Your task to perform on an android device: Search for panasonic triple a on ebay, select the first entry, and add it to the cart. Image 0: 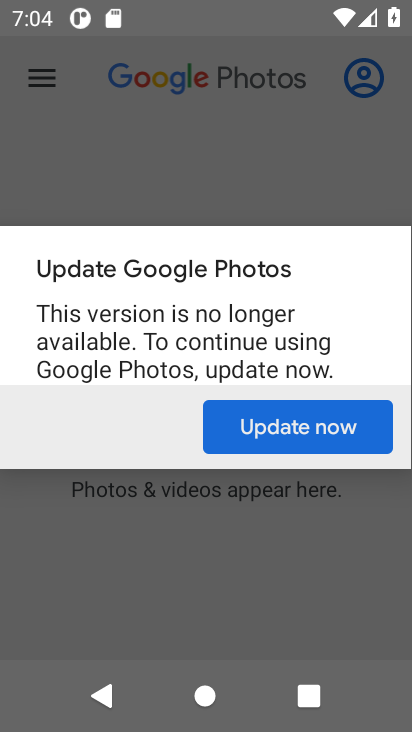
Step 0: press home button
Your task to perform on an android device: Search for panasonic triple a on ebay, select the first entry, and add it to the cart. Image 1: 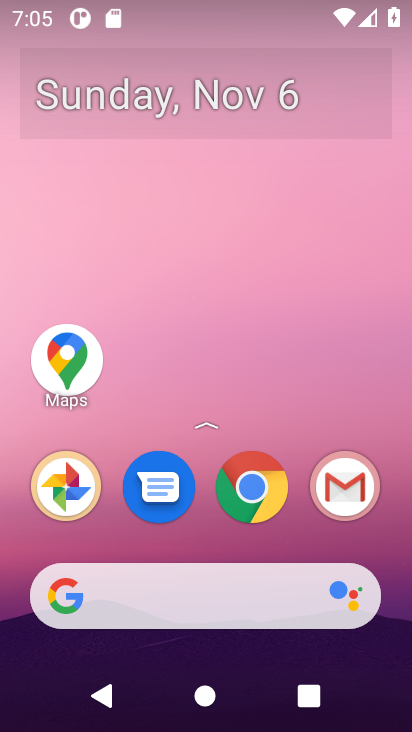
Step 1: click (248, 489)
Your task to perform on an android device: Search for panasonic triple a on ebay, select the first entry, and add it to the cart. Image 2: 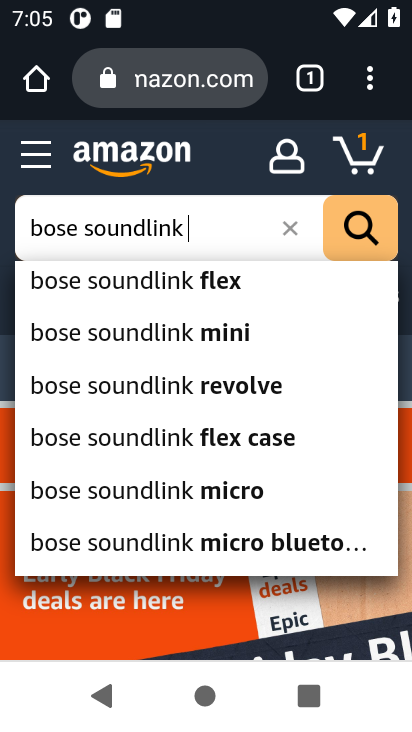
Step 2: click (137, 87)
Your task to perform on an android device: Search for panasonic triple a on ebay, select the first entry, and add it to the cart. Image 3: 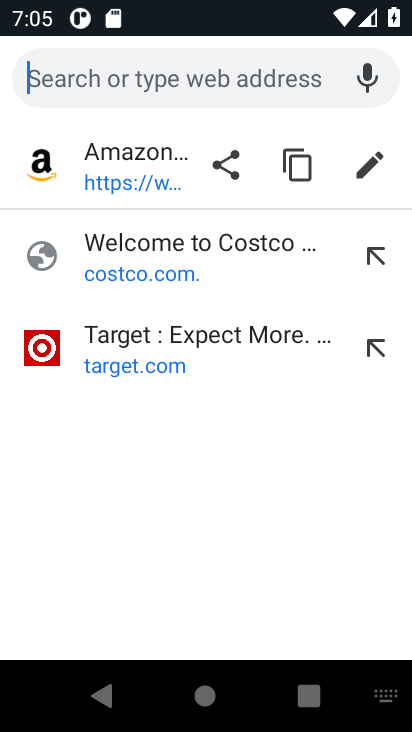
Step 3: type "ebay"
Your task to perform on an android device: Search for panasonic triple a on ebay, select the first entry, and add it to the cart. Image 4: 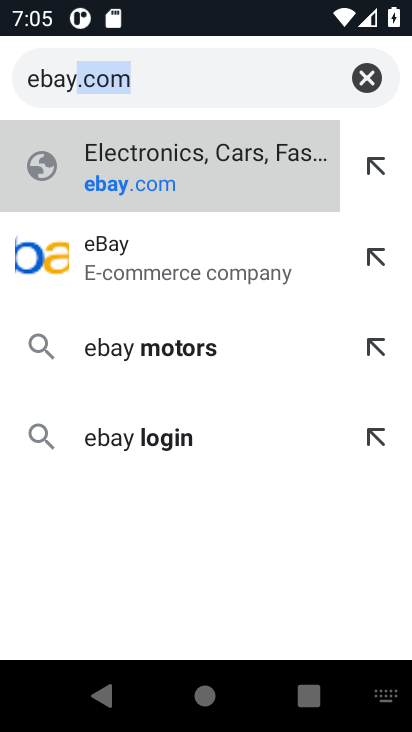
Step 4: click (147, 147)
Your task to perform on an android device: Search for panasonic triple a on ebay, select the first entry, and add it to the cart. Image 5: 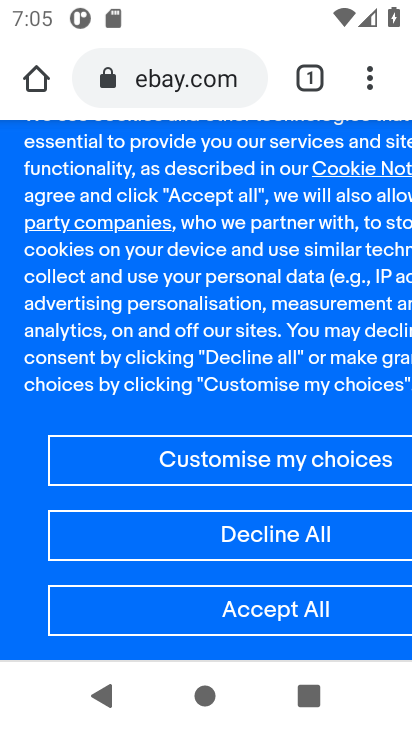
Step 5: click (233, 607)
Your task to perform on an android device: Search for panasonic triple a on ebay, select the first entry, and add it to the cart. Image 6: 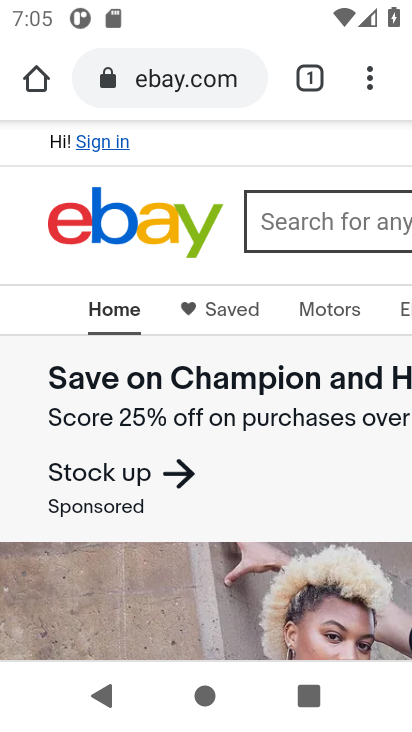
Step 6: click (253, 217)
Your task to perform on an android device: Search for panasonic triple a on ebay, select the first entry, and add it to the cart. Image 7: 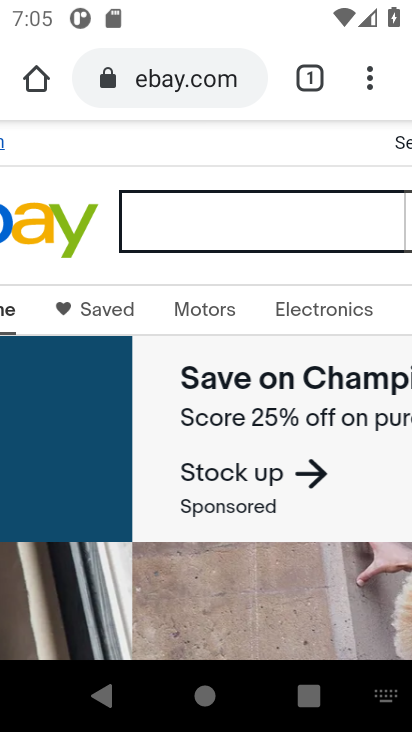
Step 7: type "panasonic triple"
Your task to perform on an android device: Search for panasonic triple a on ebay, select the first entry, and add it to the cart. Image 8: 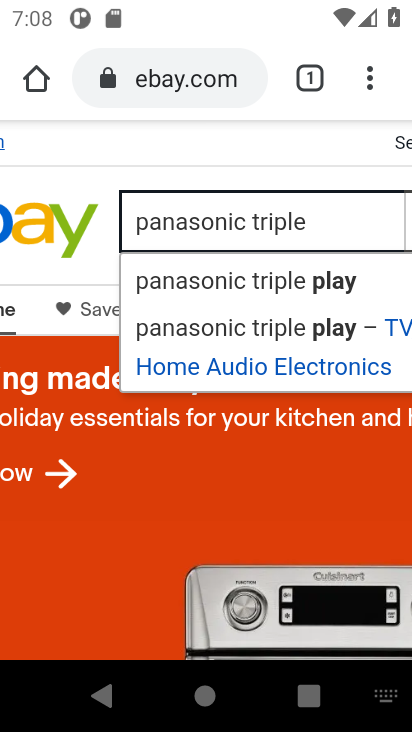
Step 8: drag from (363, 471) to (98, 468)
Your task to perform on an android device: Search for panasonic triple a on ebay, select the first entry, and add it to the cart. Image 9: 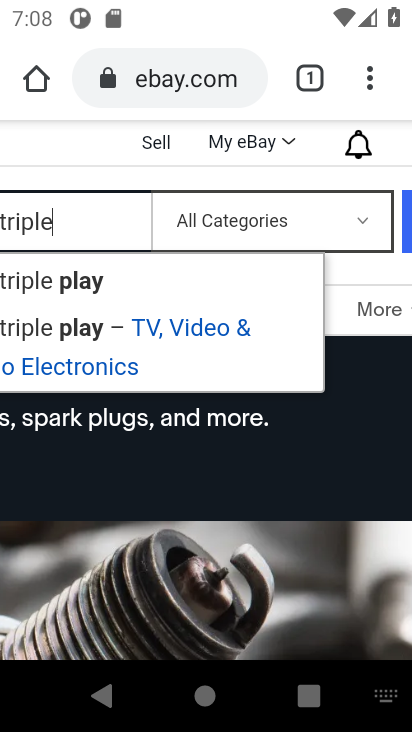
Step 9: click (402, 220)
Your task to perform on an android device: Search for panasonic triple a on ebay, select the first entry, and add it to the cart. Image 10: 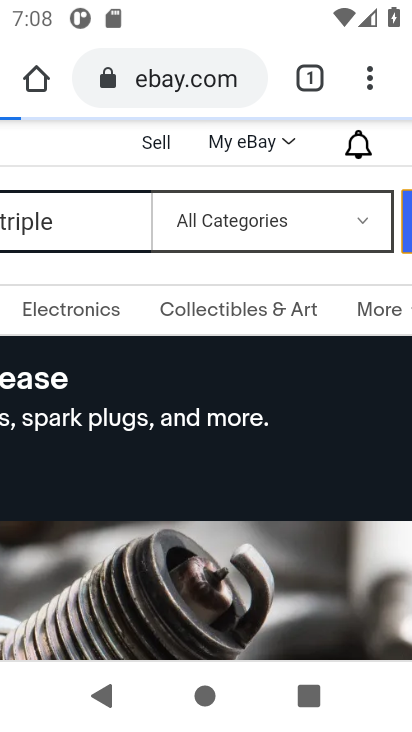
Step 10: click (405, 222)
Your task to perform on an android device: Search for panasonic triple a on ebay, select the first entry, and add it to the cart. Image 11: 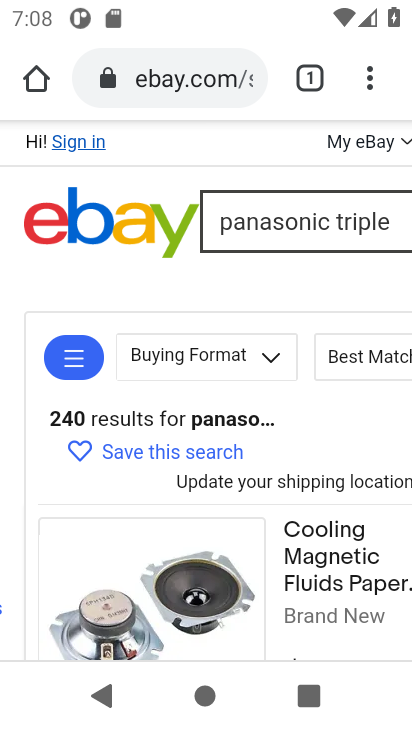
Step 11: task complete